Your task to perform on an android device: Open internet settings Image 0: 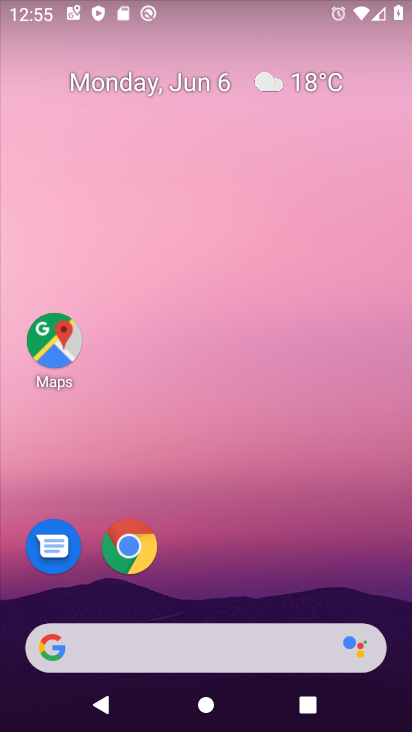
Step 0: drag from (242, 404) to (227, 180)
Your task to perform on an android device: Open internet settings Image 1: 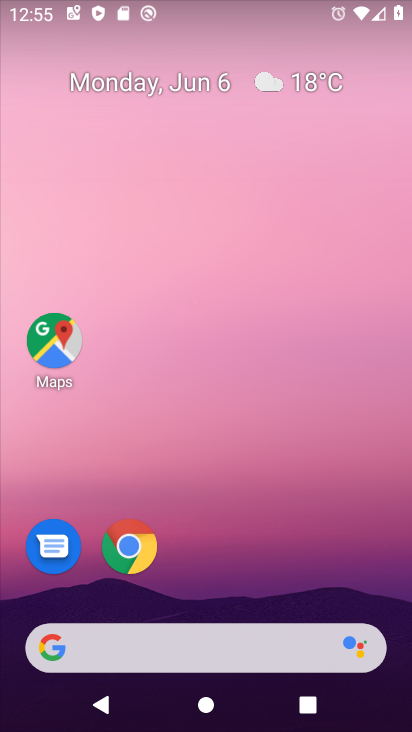
Step 1: drag from (266, 542) to (237, 69)
Your task to perform on an android device: Open internet settings Image 2: 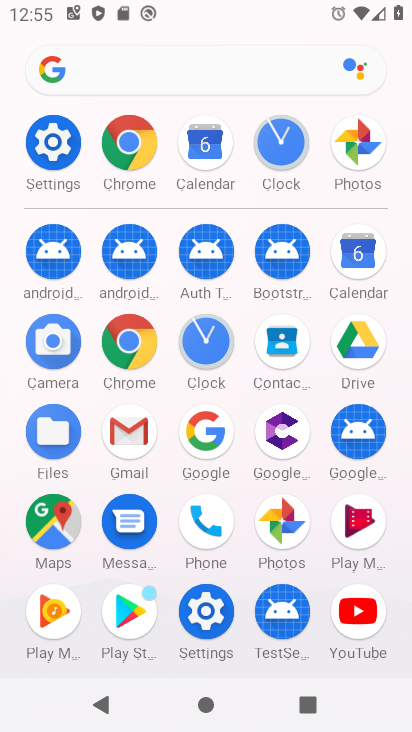
Step 2: click (51, 146)
Your task to perform on an android device: Open internet settings Image 3: 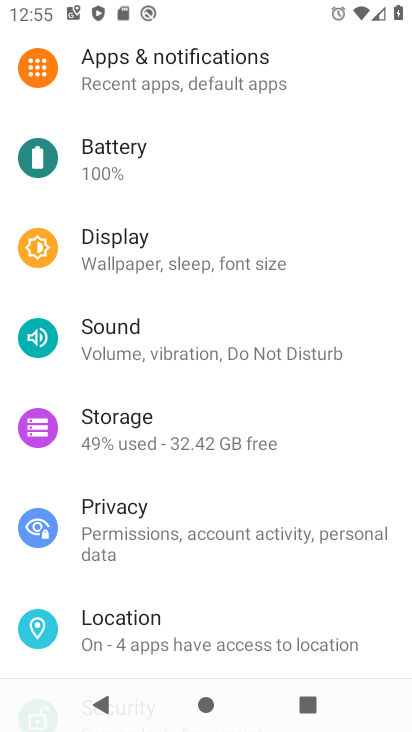
Step 3: drag from (252, 131) to (252, 406)
Your task to perform on an android device: Open internet settings Image 4: 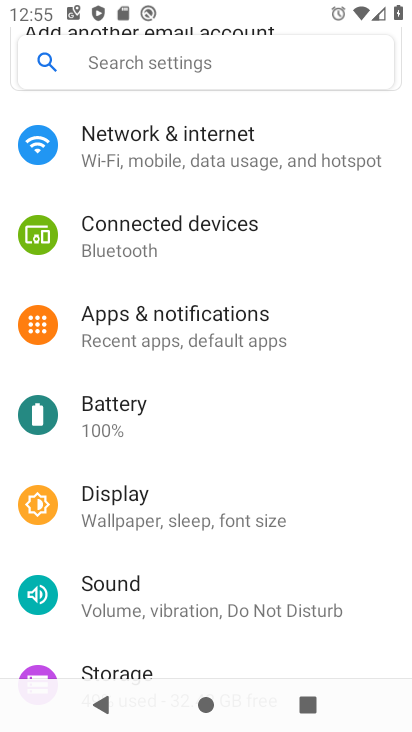
Step 4: click (183, 165)
Your task to perform on an android device: Open internet settings Image 5: 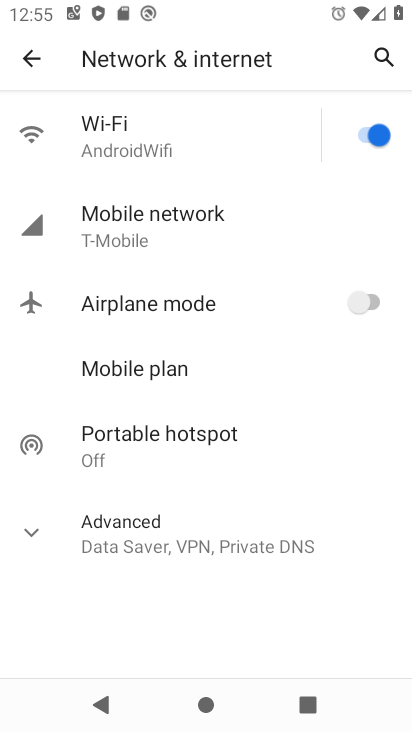
Step 5: task complete